Your task to perform on an android device: Go to Amazon Image 0: 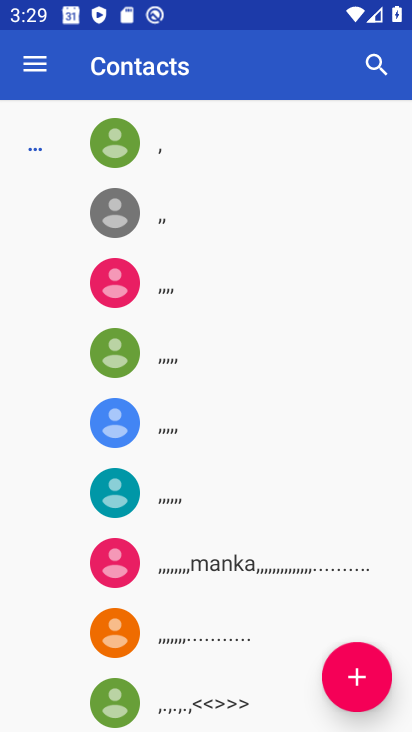
Step 0: press home button
Your task to perform on an android device: Go to Amazon Image 1: 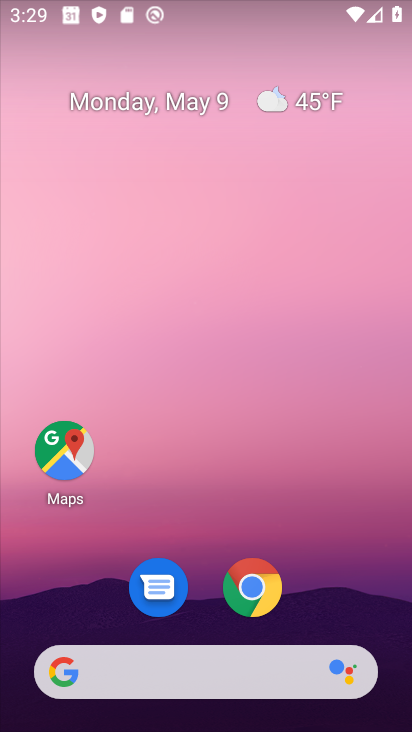
Step 1: drag from (383, 444) to (333, 142)
Your task to perform on an android device: Go to Amazon Image 2: 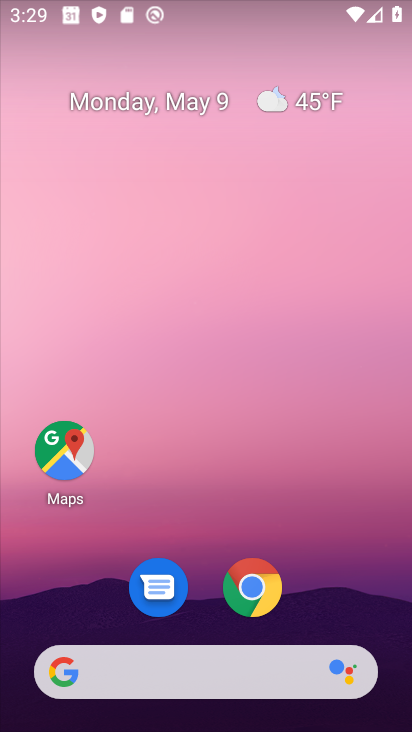
Step 2: drag from (396, 677) to (374, 196)
Your task to perform on an android device: Go to Amazon Image 3: 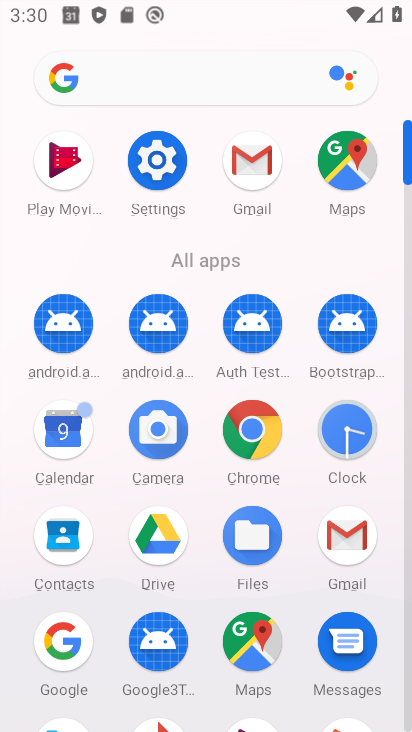
Step 3: drag from (265, 313) to (256, 207)
Your task to perform on an android device: Go to Amazon Image 4: 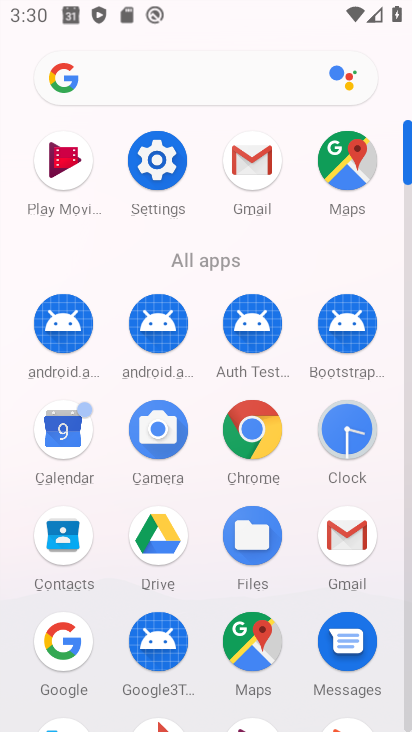
Step 4: drag from (200, 663) to (214, 302)
Your task to perform on an android device: Go to Amazon Image 5: 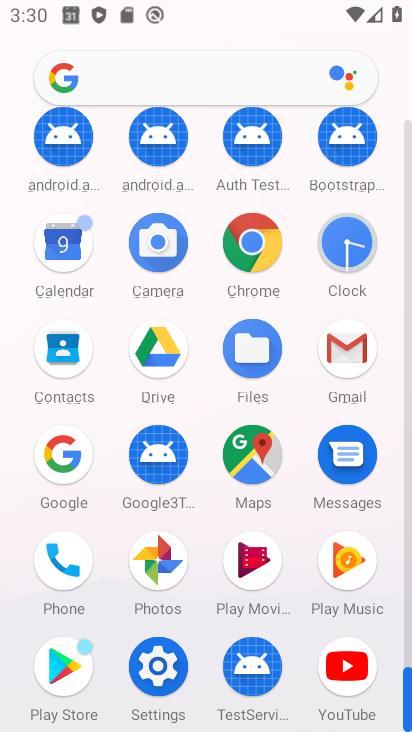
Step 5: click (244, 459)
Your task to perform on an android device: Go to Amazon Image 6: 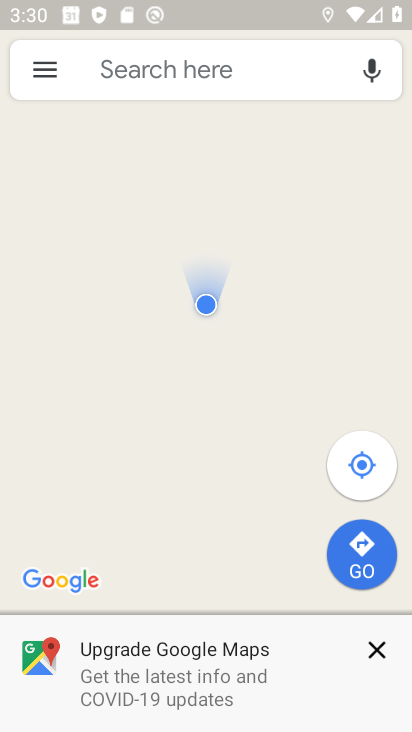
Step 6: click (106, 78)
Your task to perform on an android device: Go to Amazon Image 7: 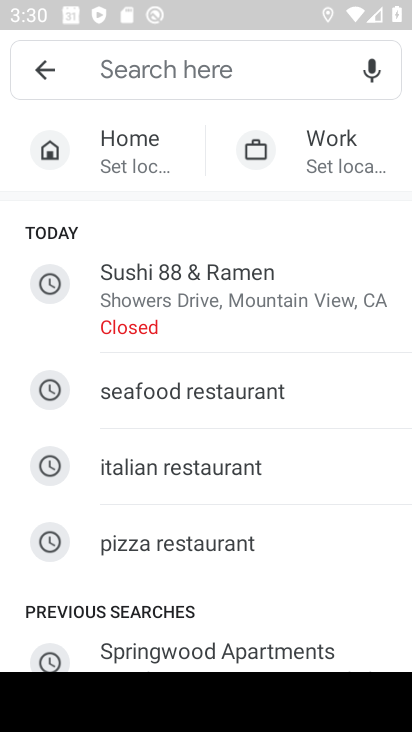
Step 7: type "Amazon"
Your task to perform on an android device: Go to Amazon Image 8: 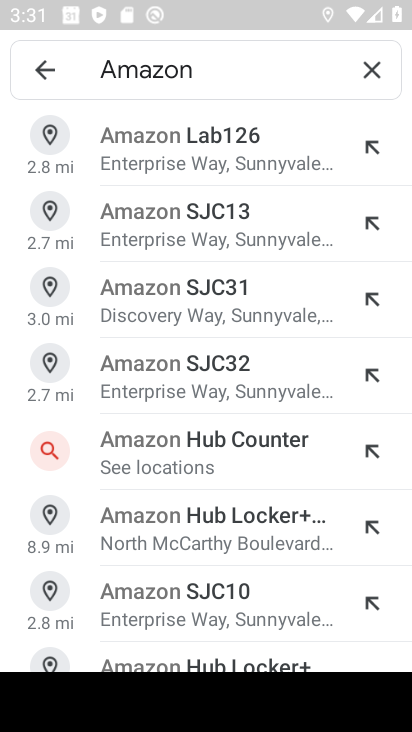
Step 8: click (128, 77)
Your task to perform on an android device: Go to Amazon Image 9: 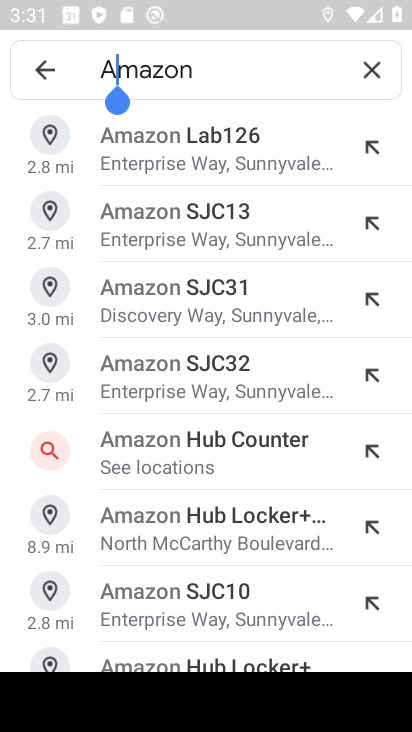
Step 9: click (200, 68)
Your task to perform on an android device: Go to Amazon Image 10: 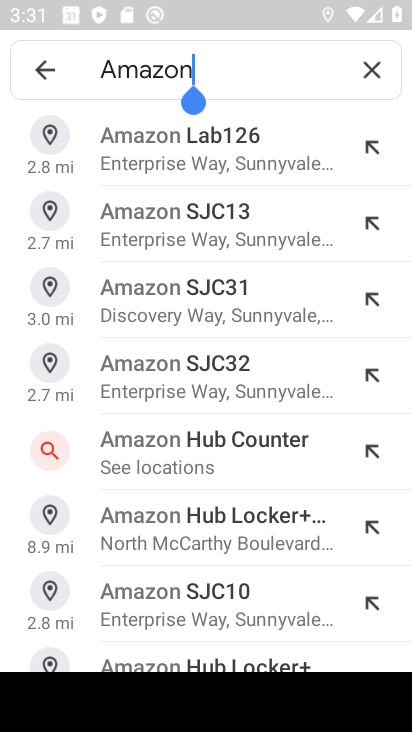
Step 10: click (239, 88)
Your task to perform on an android device: Go to Amazon Image 11: 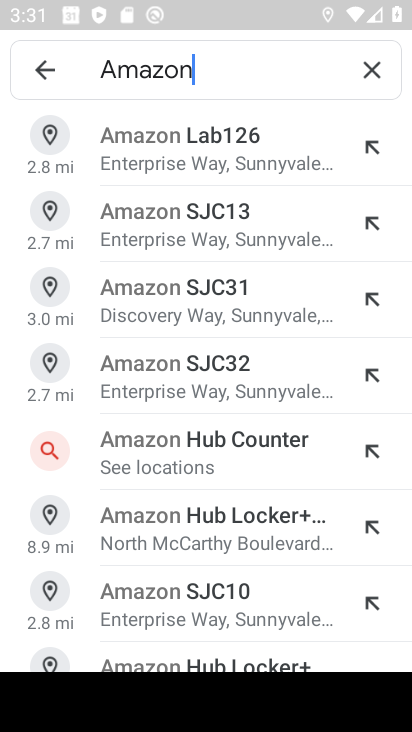
Step 11: task complete